Your task to perform on an android device: clear all cookies in the chrome app Image 0: 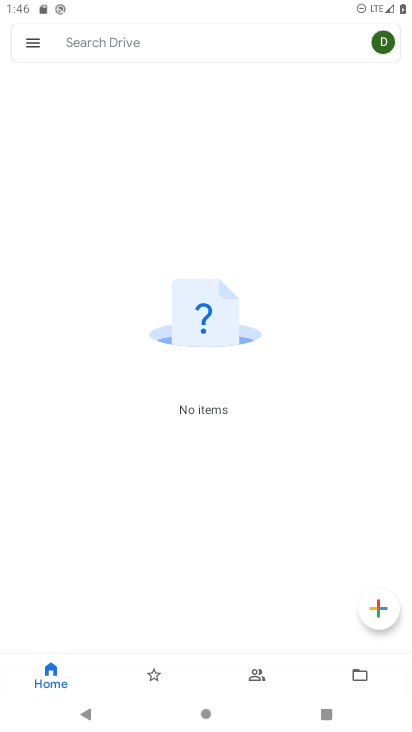
Step 0: press home button
Your task to perform on an android device: clear all cookies in the chrome app Image 1: 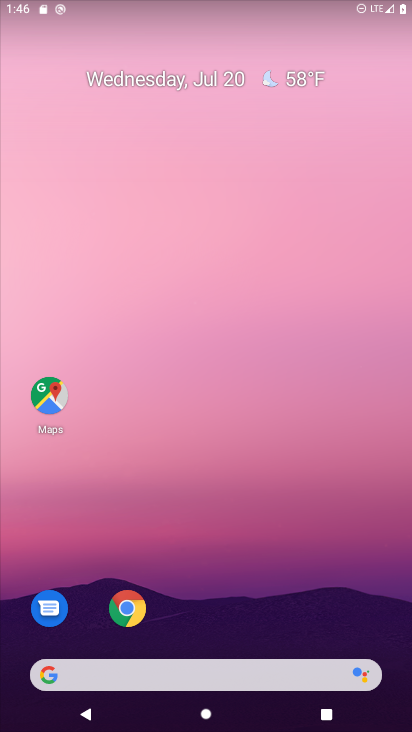
Step 1: drag from (246, 723) to (246, 373)
Your task to perform on an android device: clear all cookies in the chrome app Image 2: 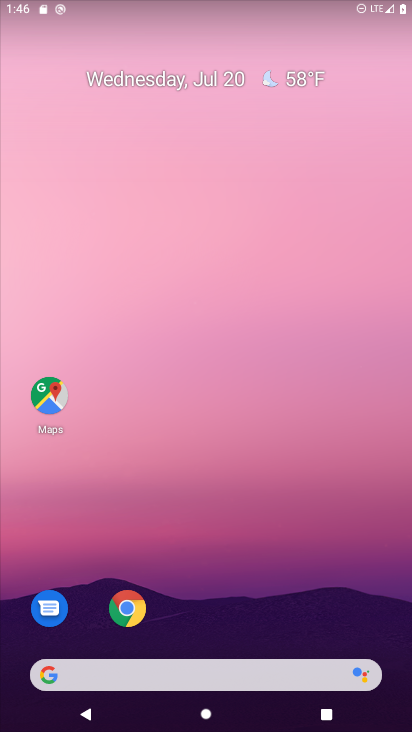
Step 2: drag from (266, 716) to (232, 52)
Your task to perform on an android device: clear all cookies in the chrome app Image 3: 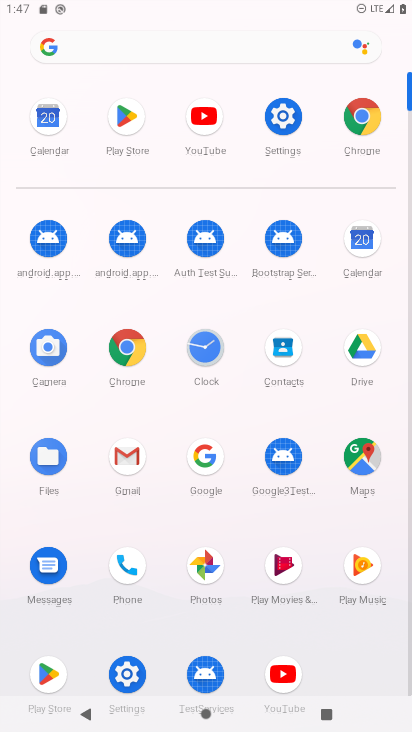
Step 3: click (129, 351)
Your task to perform on an android device: clear all cookies in the chrome app Image 4: 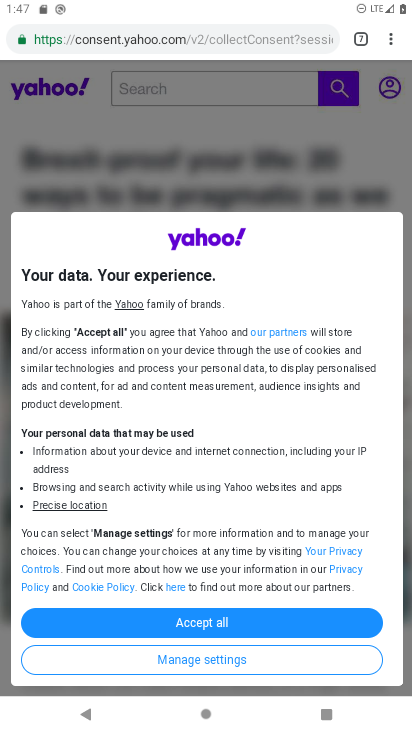
Step 4: click (392, 44)
Your task to perform on an android device: clear all cookies in the chrome app Image 5: 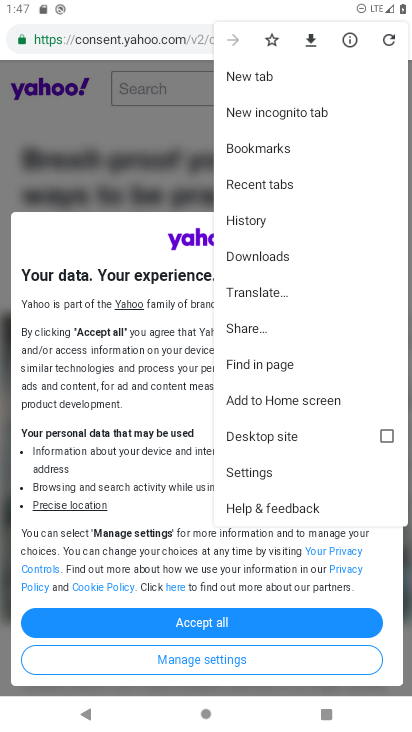
Step 5: click (253, 221)
Your task to perform on an android device: clear all cookies in the chrome app Image 6: 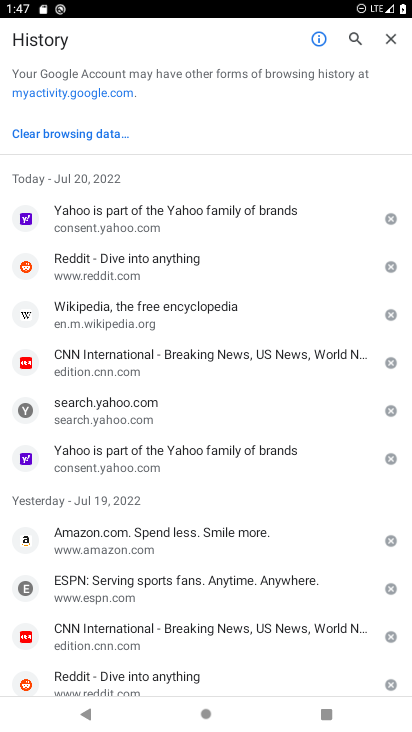
Step 6: click (56, 132)
Your task to perform on an android device: clear all cookies in the chrome app Image 7: 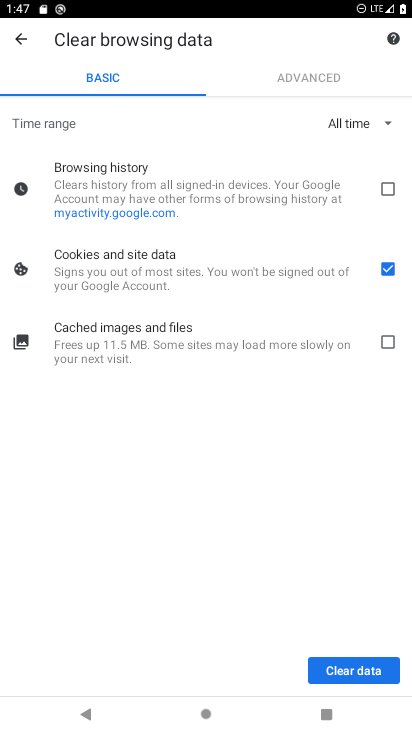
Step 7: click (374, 675)
Your task to perform on an android device: clear all cookies in the chrome app Image 8: 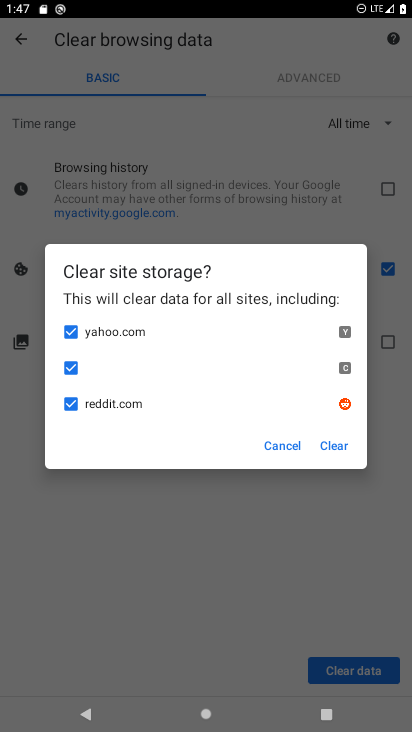
Step 8: click (338, 441)
Your task to perform on an android device: clear all cookies in the chrome app Image 9: 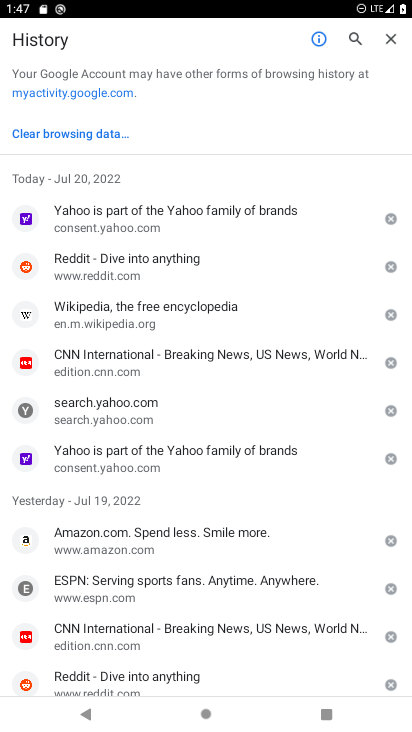
Step 9: task complete